Your task to perform on an android device: turn notification dots off Image 0: 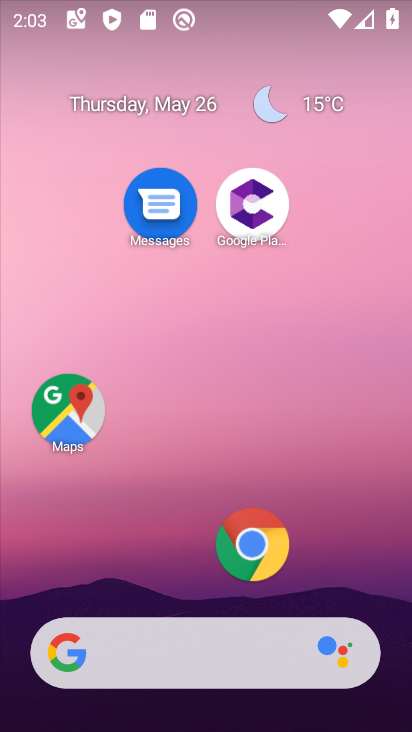
Step 0: drag from (154, 562) to (173, 32)
Your task to perform on an android device: turn notification dots off Image 1: 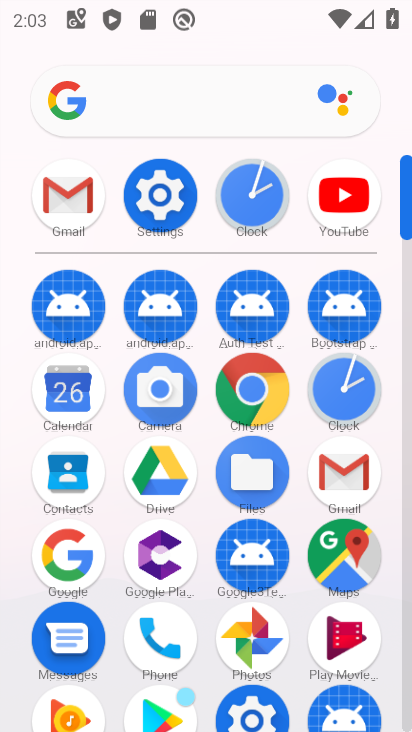
Step 1: click (152, 217)
Your task to perform on an android device: turn notification dots off Image 2: 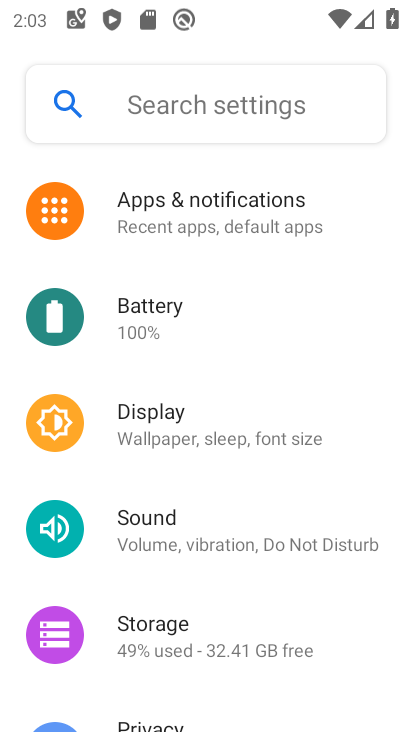
Step 2: click (152, 217)
Your task to perform on an android device: turn notification dots off Image 3: 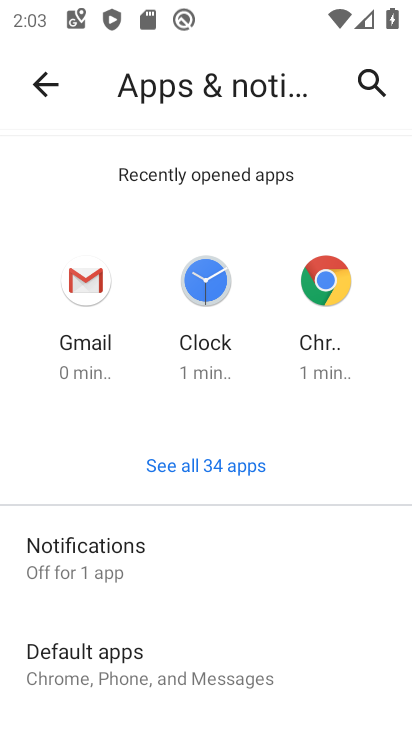
Step 3: click (131, 577)
Your task to perform on an android device: turn notification dots off Image 4: 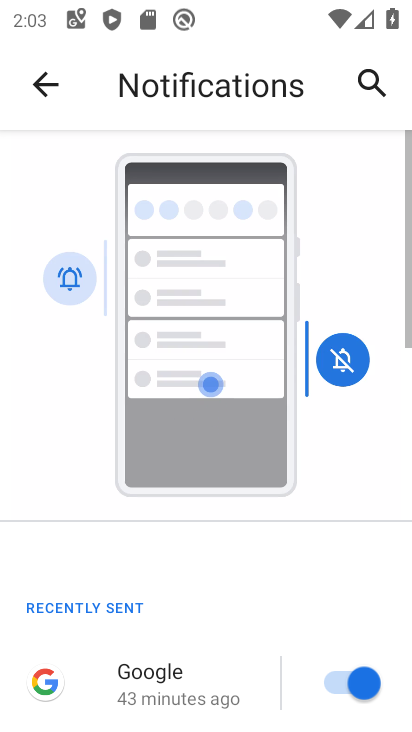
Step 4: drag from (136, 634) to (235, 12)
Your task to perform on an android device: turn notification dots off Image 5: 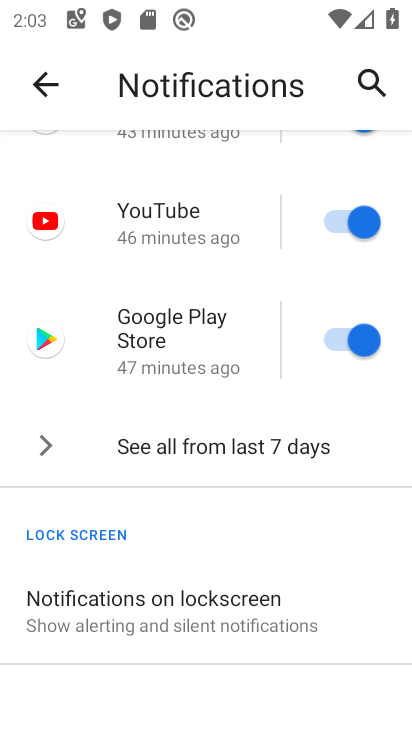
Step 5: drag from (129, 616) to (184, 122)
Your task to perform on an android device: turn notification dots off Image 6: 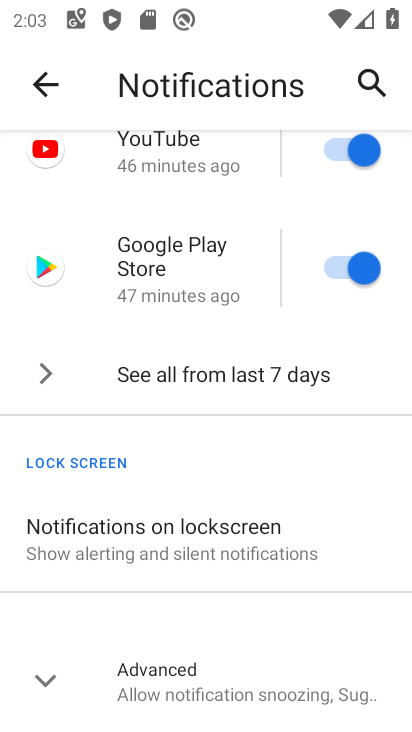
Step 6: click (169, 672)
Your task to perform on an android device: turn notification dots off Image 7: 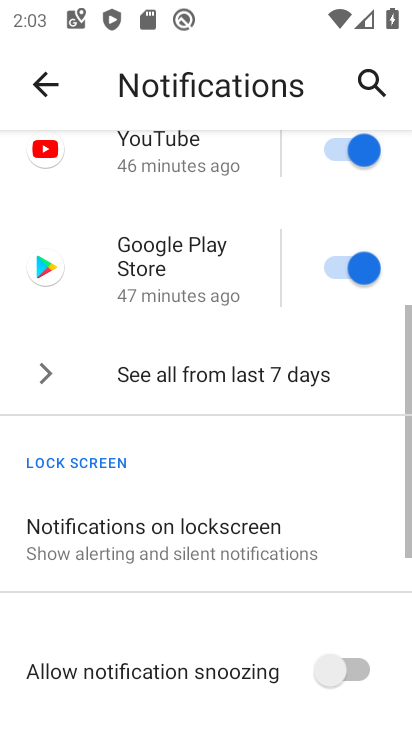
Step 7: drag from (169, 672) to (219, 231)
Your task to perform on an android device: turn notification dots off Image 8: 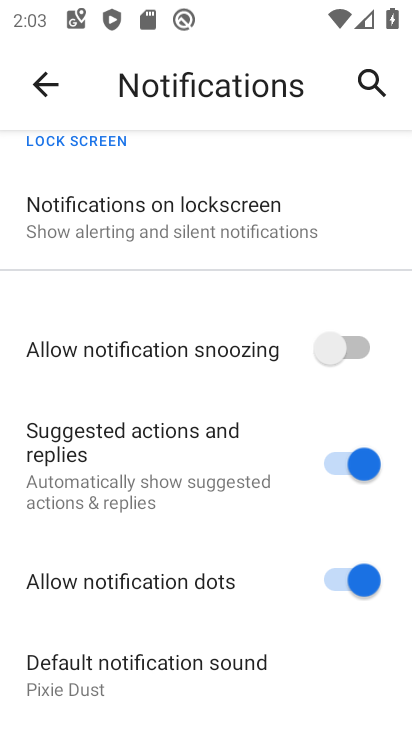
Step 8: click (346, 579)
Your task to perform on an android device: turn notification dots off Image 9: 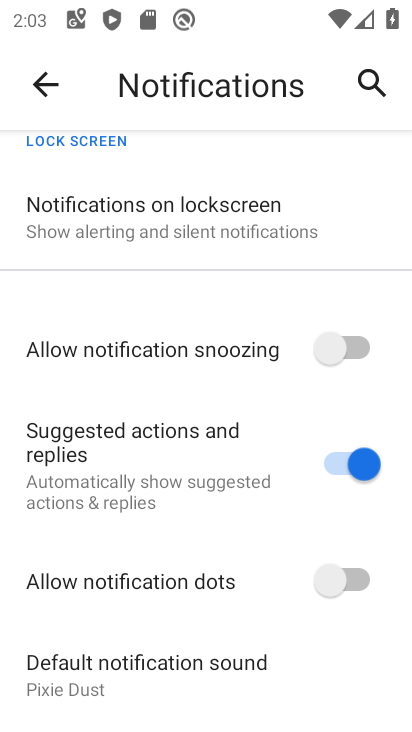
Step 9: task complete